Your task to perform on an android device: make emails show in primary in the gmail app Image 0: 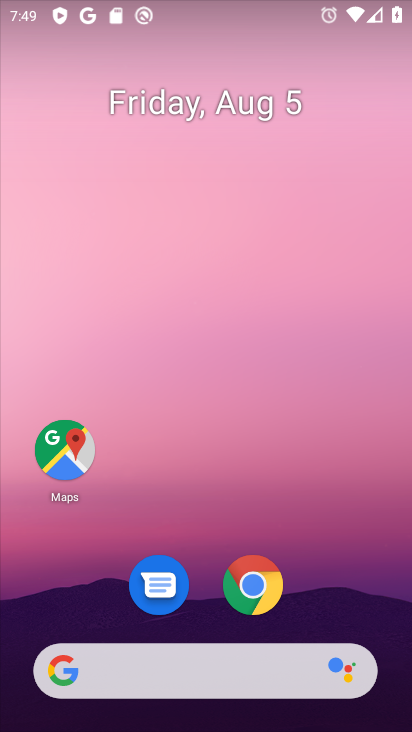
Step 0: drag from (319, 585) to (283, 29)
Your task to perform on an android device: make emails show in primary in the gmail app Image 1: 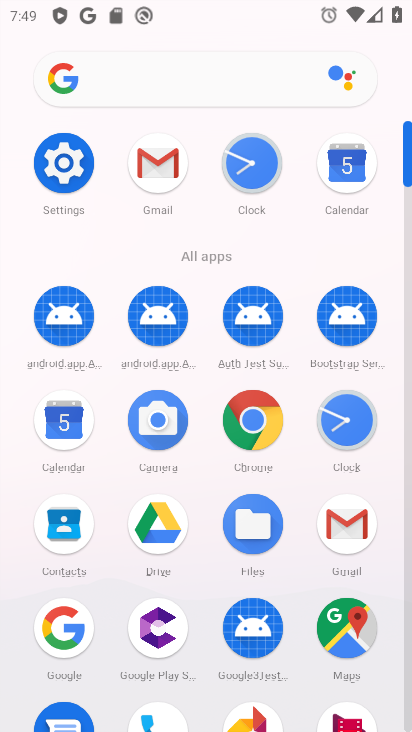
Step 1: click (169, 175)
Your task to perform on an android device: make emails show in primary in the gmail app Image 2: 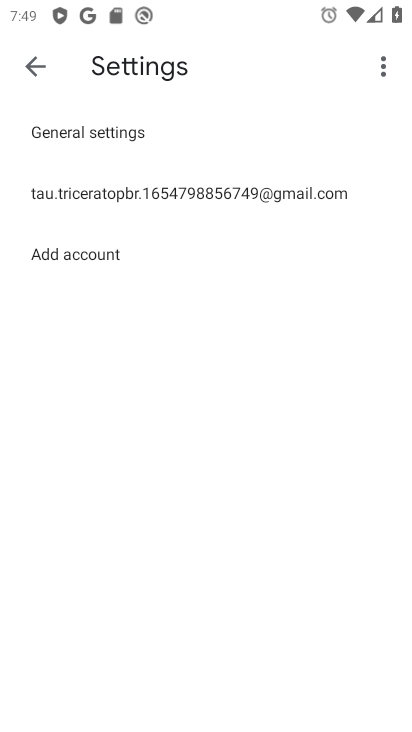
Step 2: click (135, 190)
Your task to perform on an android device: make emails show in primary in the gmail app Image 3: 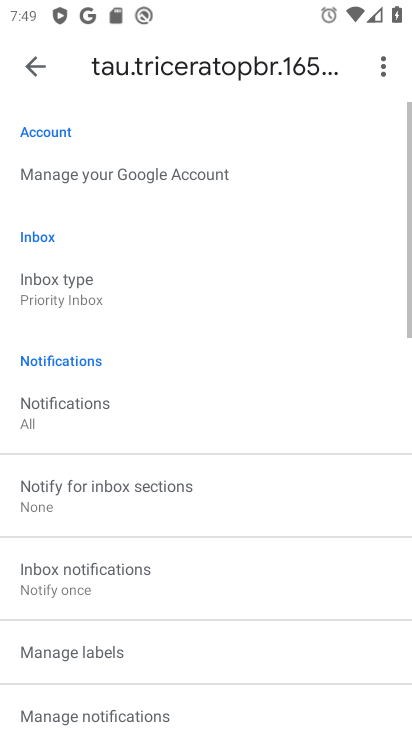
Step 3: click (80, 287)
Your task to perform on an android device: make emails show in primary in the gmail app Image 4: 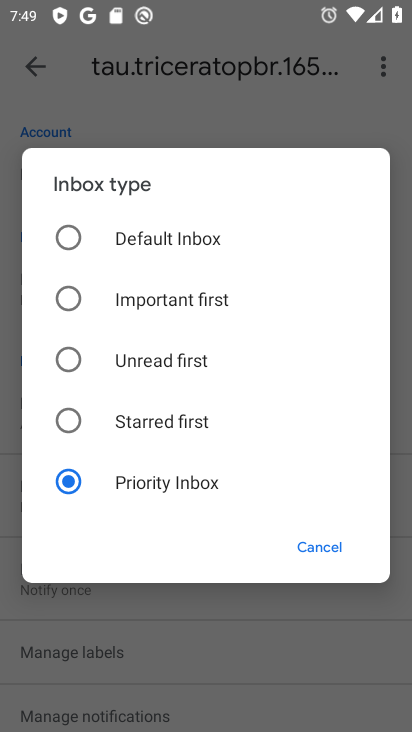
Step 4: click (63, 233)
Your task to perform on an android device: make emails show in primary in the gmail app Image 5: 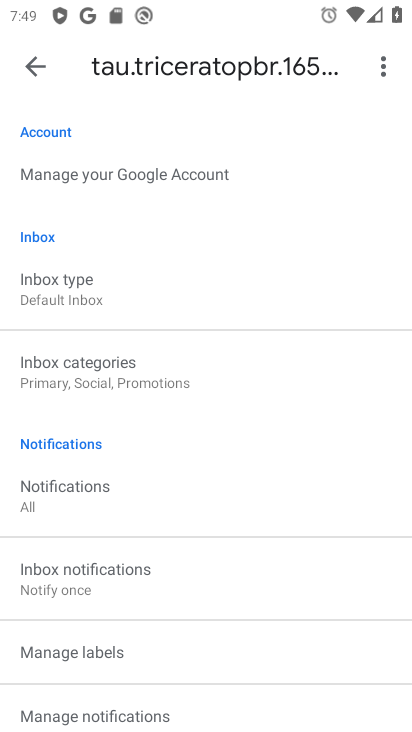
Step 5: click (93, 367)
Your task to perform on an android device: make emails show in primary in the gmail app Image 6: 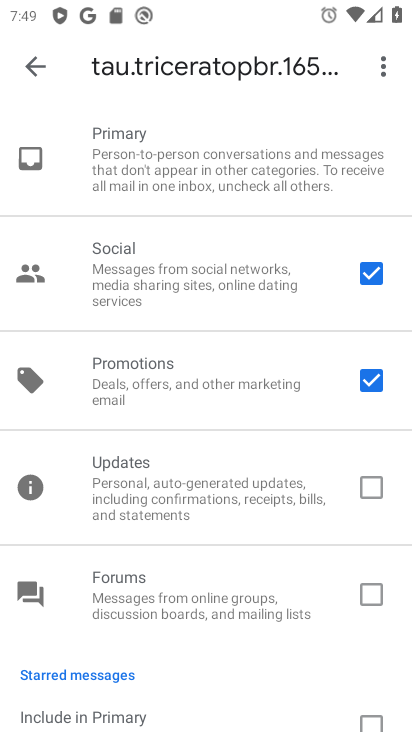
Step 6: click (365, 271)
Your task to perform on an android device: make emails show in primary in the gmail app Image 7: 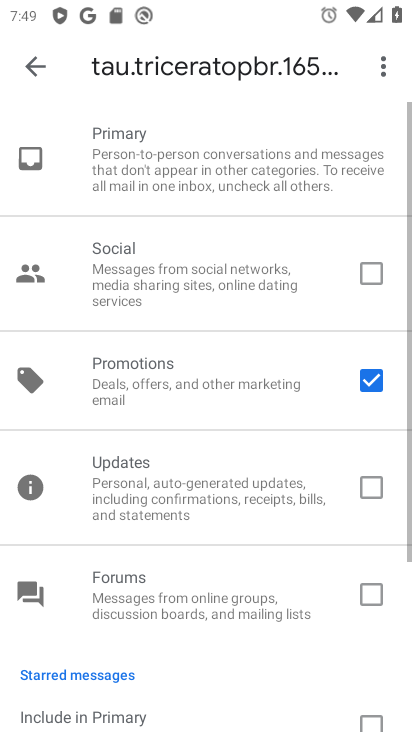
Step 7: click (373, 372)
Your task to perform on an android device: make emails show in primary in the gmail app Image 8: 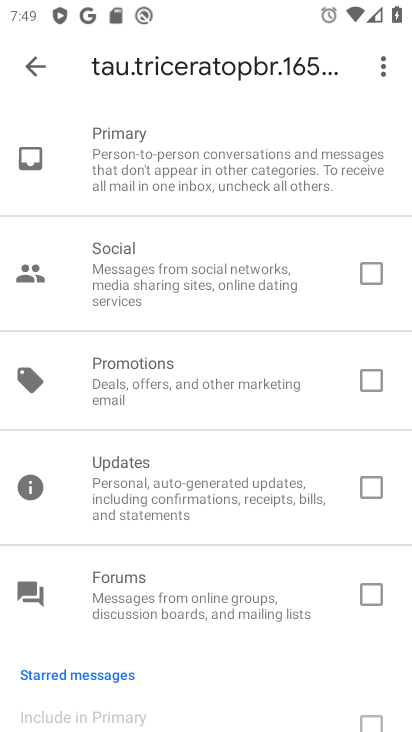
Step 8: click (27, 60)
Your task to perform on an android device: make emails show in primary in the gmail app Image 9: 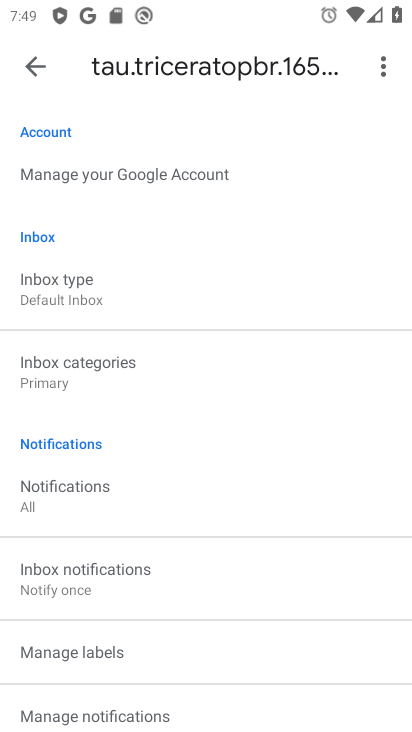
Step 9: task complete